Your task to perform on an android device: turn off javascript in the chrome app Image 0: 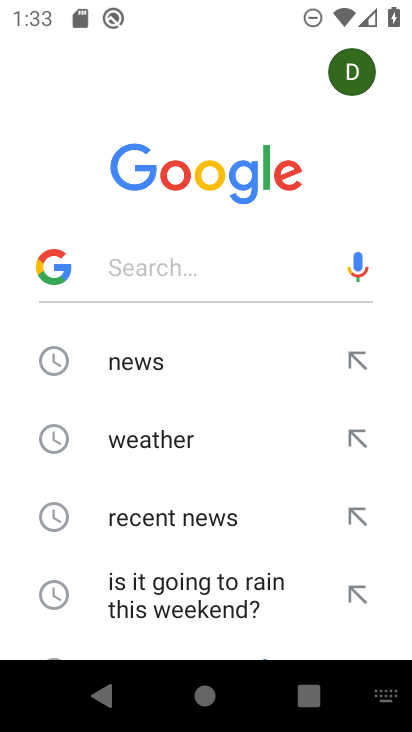
Step 0: press back button
Your task to perform on an android device: turn off javascript in the chrome app Image 1: 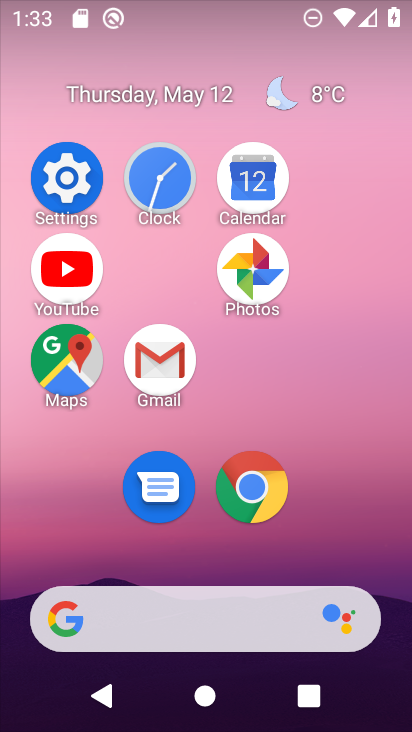
Step 1: click (245, 484)
Your task to perform on an android device: turn off javascript in the chrome app Image 2: 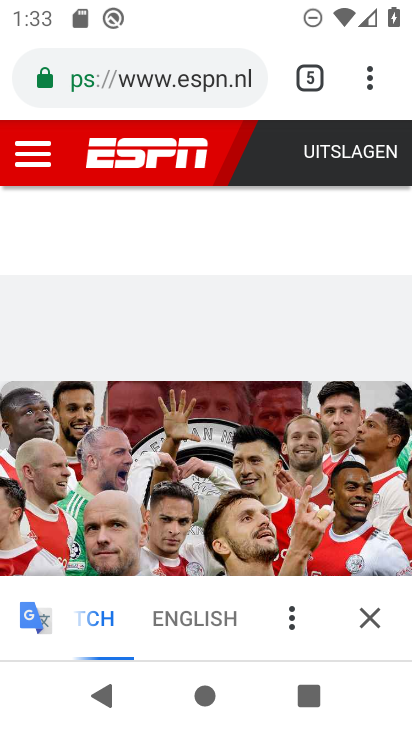
Step 2: click (377, 83)
Your task to perform on an android device: turn off javascript in the chrome app Image 3: 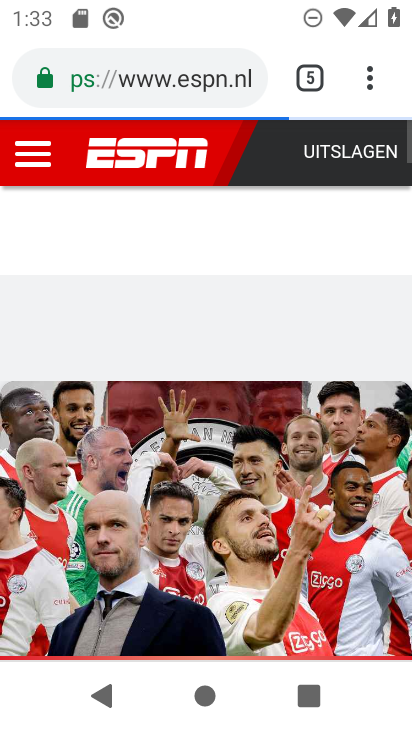
Step 3: click (356, 84)
Your task to perform on an android device: turn off javascript in the chrome app Image 4: 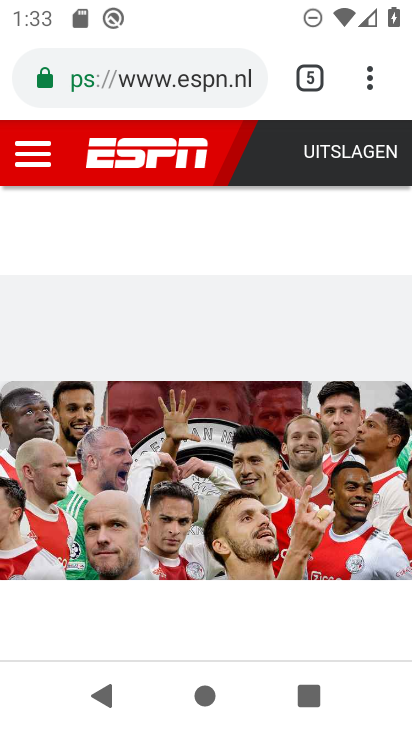
Step 4: click (370, 65)
Your task to perform on an android device: turn off javascript in the chrome app Image 5: 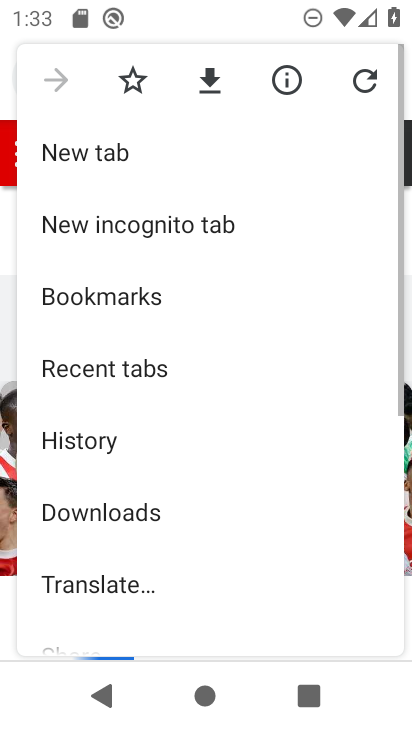
Step 5: drag from (184, 568) to (236, 151)
Your task to perform on an android device: turn off javascript in the chrome app Image 6: 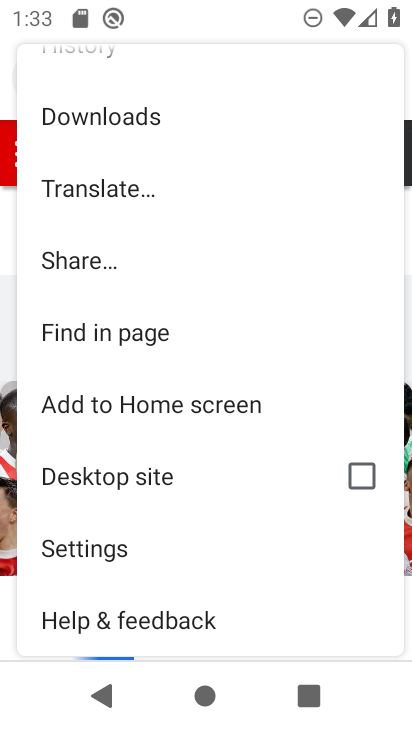
Step 6: click (116, 556)
Your task to perform on an android device: turn off javascript in the chrome app Image 7: 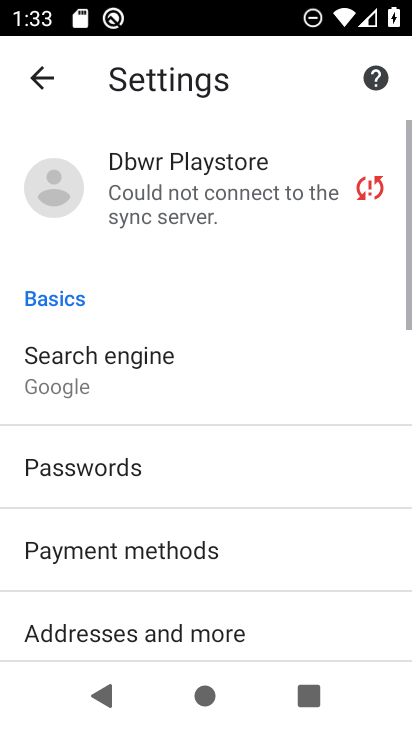
Step 7: drag from (221, 564) to (230, 128)
Your task to perform on an android device: turn off javascript in the chrome app Image 8: 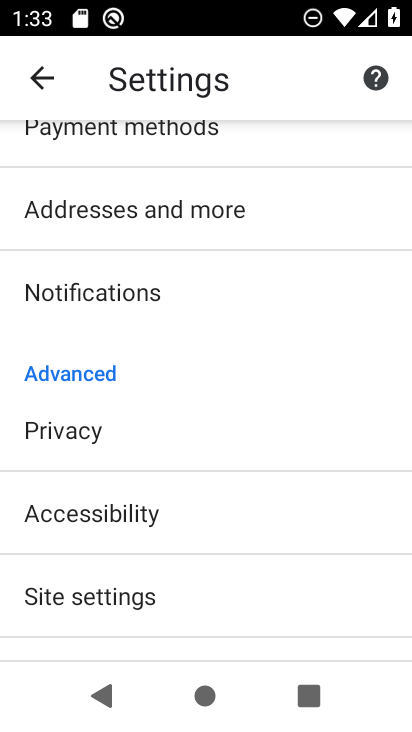
Step 8: click (199, 605)
Your task to perform on an android device: turn off javascript in the chrome app Image 9: 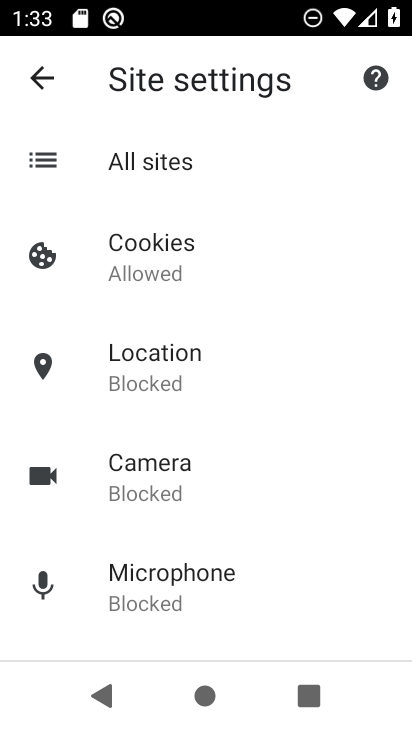
Step 9: drag from (231, 502) to (264, 164)
Your task to perform on an android device: turn off javascript in the chrome app Image 10: 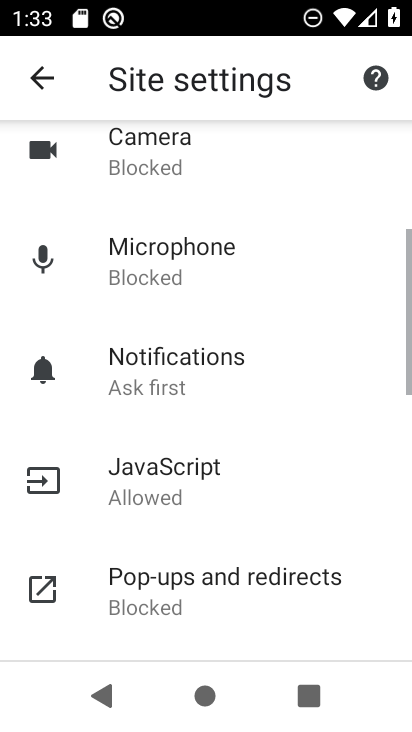
Step 10: click (217, 515)
Your task to perform on an android device: turn off javascript in the chrome app Image 11: 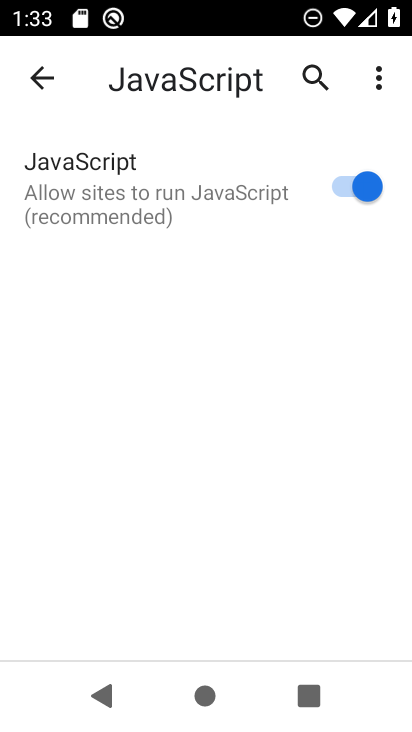
Step 11: click (348, 180)
Your task to perform on an android device: turn off javascript in the chrome app Image 12: 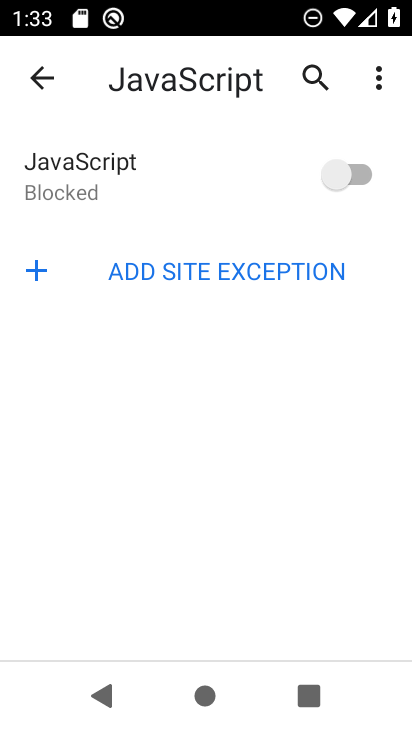
Step 12: task complete